Your task to perform on an android device: Add razer blade to the cart on bestbuy, then select checkout. Image 0: 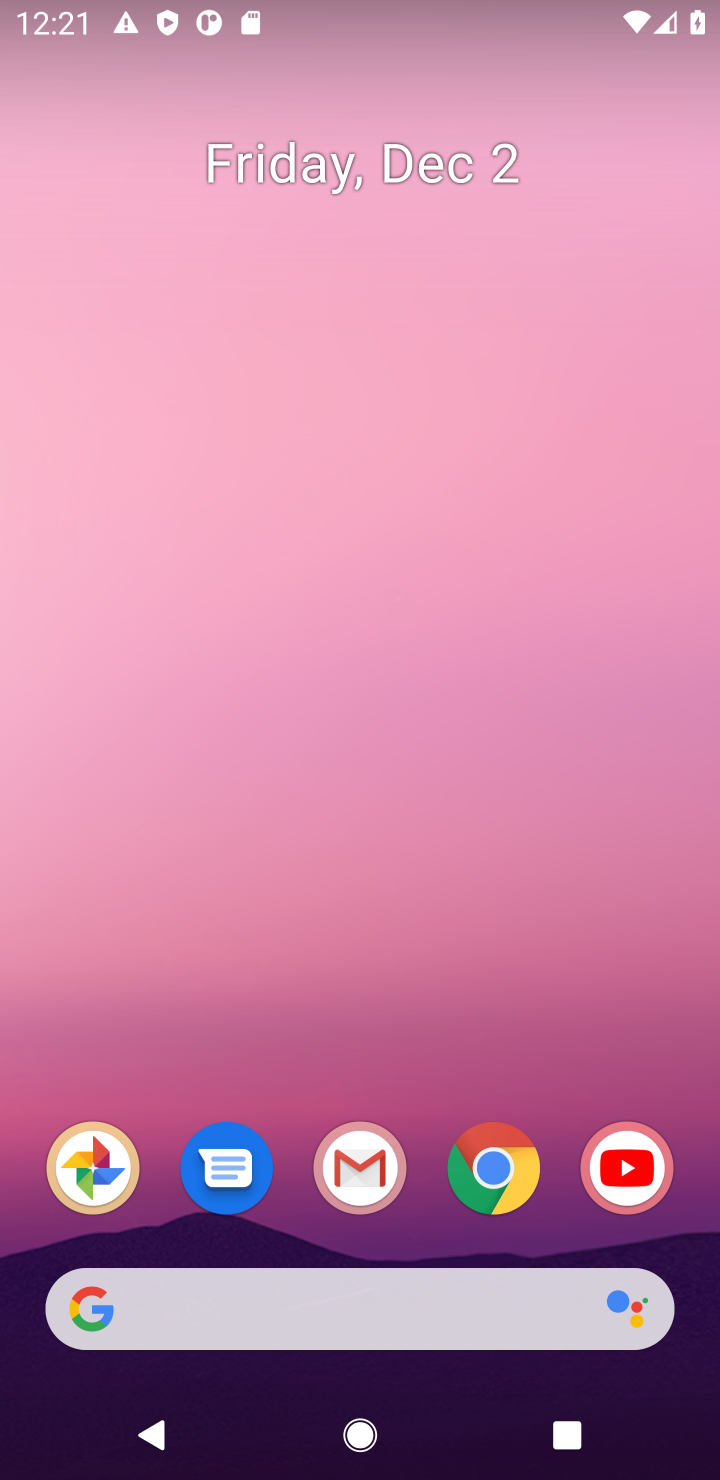
Step 0: task complete